Your task to perform on an android device: change the clock display to show seconds Image 0: 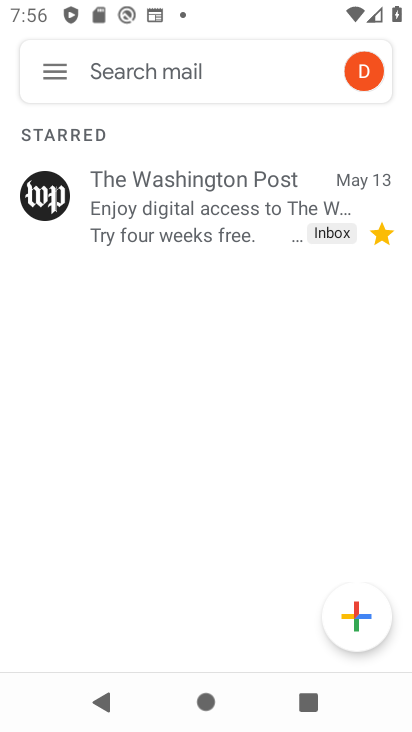
Step 0: press home button
Your task to perform on an android device: change the clock display to show seconds Image 1: 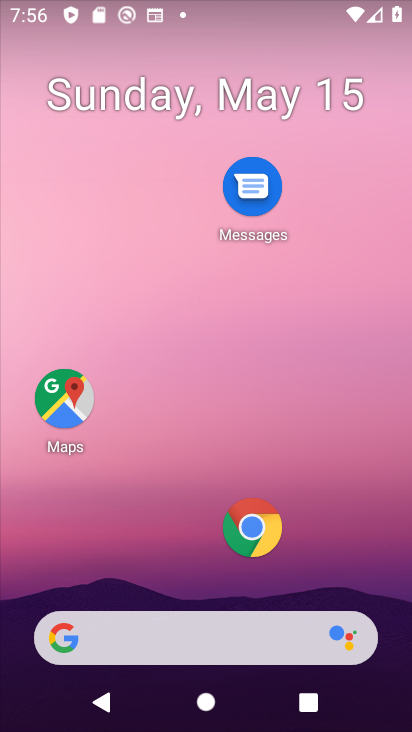
Step 1: drag from (189, 607) to (307, 209)
Your task to perform on an android device: change the clock display to show seconds Image 2: 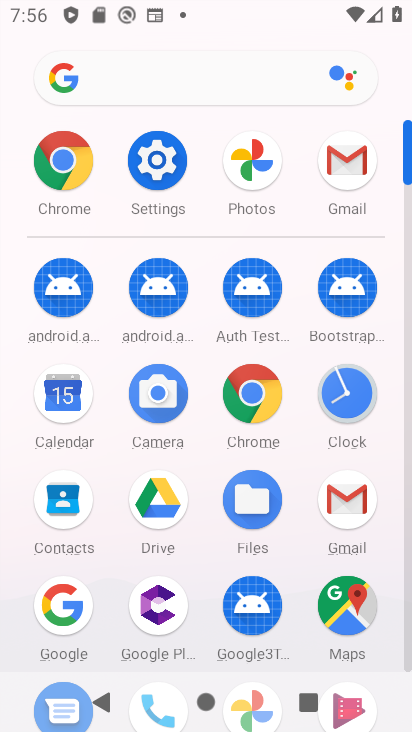
Step 2: click (344, 405)
Your task to perform on an android device: change the clock display to show seconds Image 3: 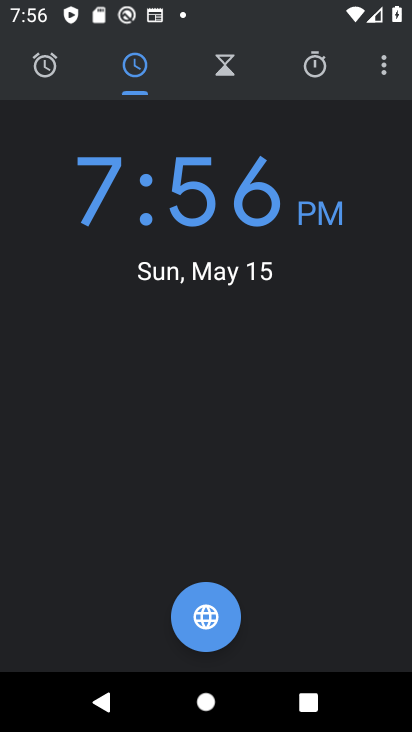
Step 3: click (386, 78)
Your task to perform on an android device: change the clock display to show seconds Image 4: 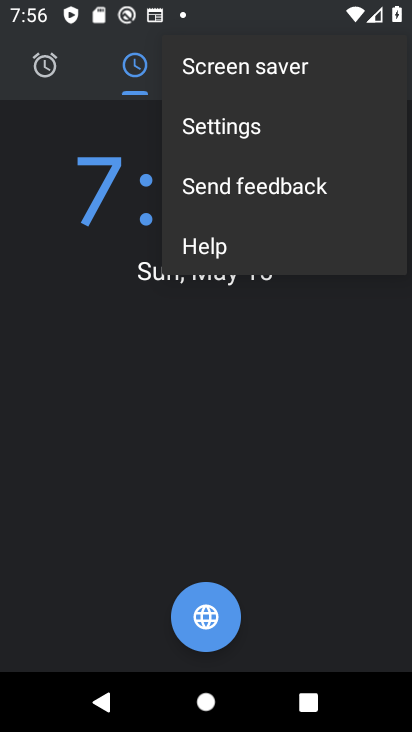
Step 4: click (237, 126)
Your task to perform on an android device: change the clock display to show seconds Image 5: 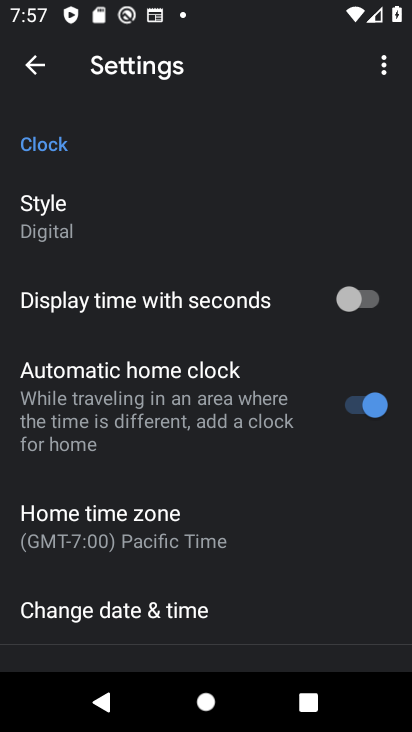
Step 5: click (369, 299)
Your task to perform on an android device: change the clock display to show seconds Image 6: 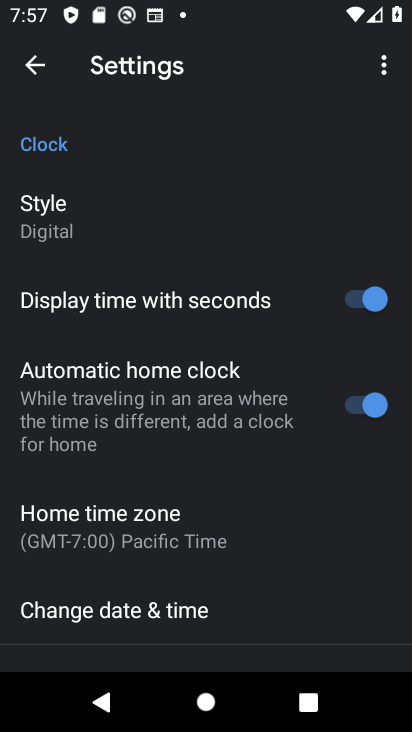
Step 6: task complete